Your task to perform on an android device: search for starred emails in the gmail app Image 0: 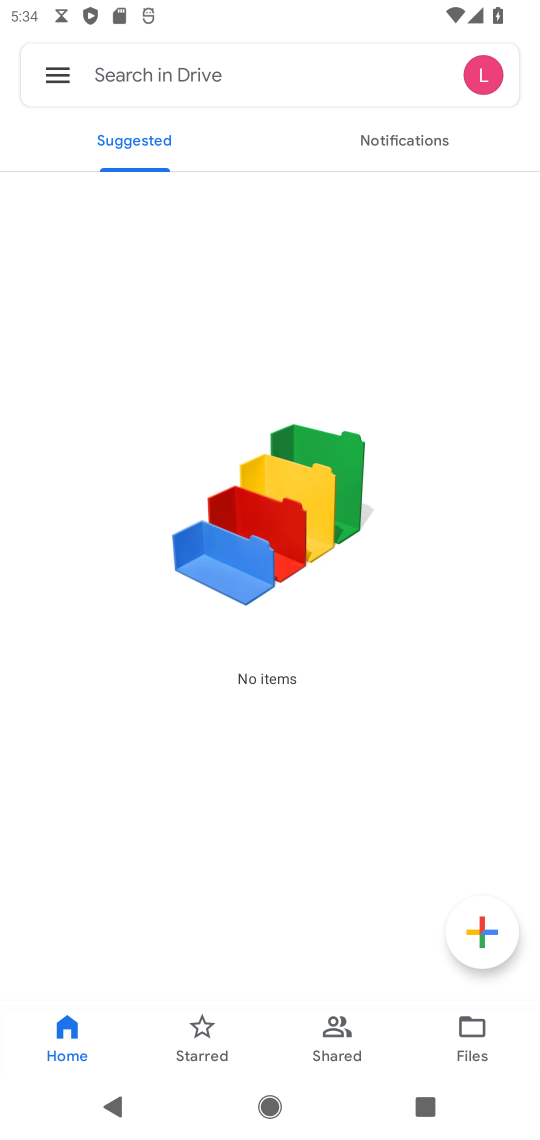
Step 0: press home button
Your task to perform on an android device: search for starred emails in the gmail app Image 1: 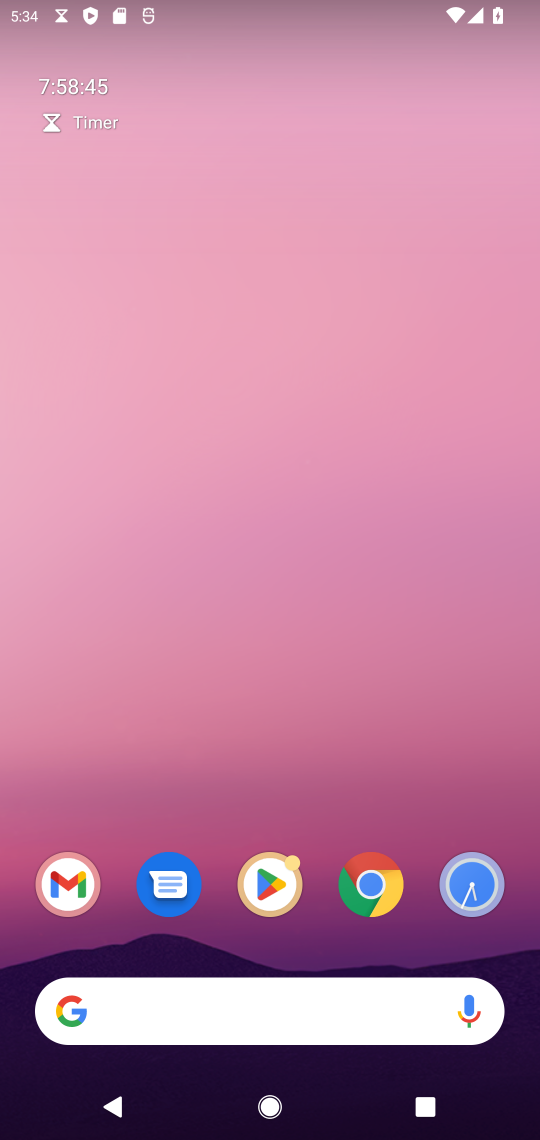
Step 1: drag from (343, 829) to (255, 149)
Your task to perform on an android device: search for starred emails in the gmail app Image 2: 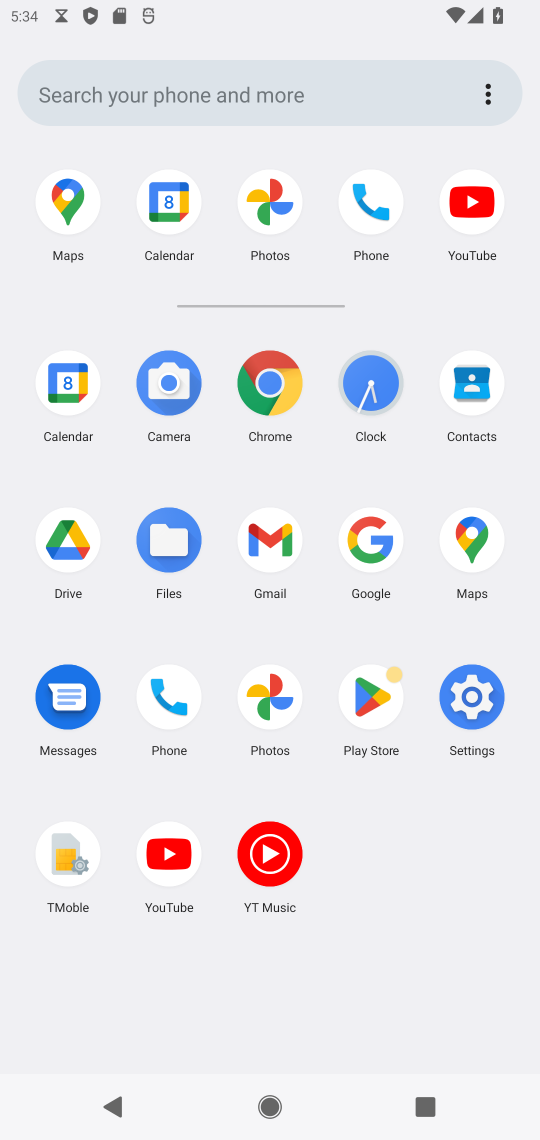
Step 2: click (275, 535)
Your task to perform on an android device: search for starred emails in the gmail app Image 3: 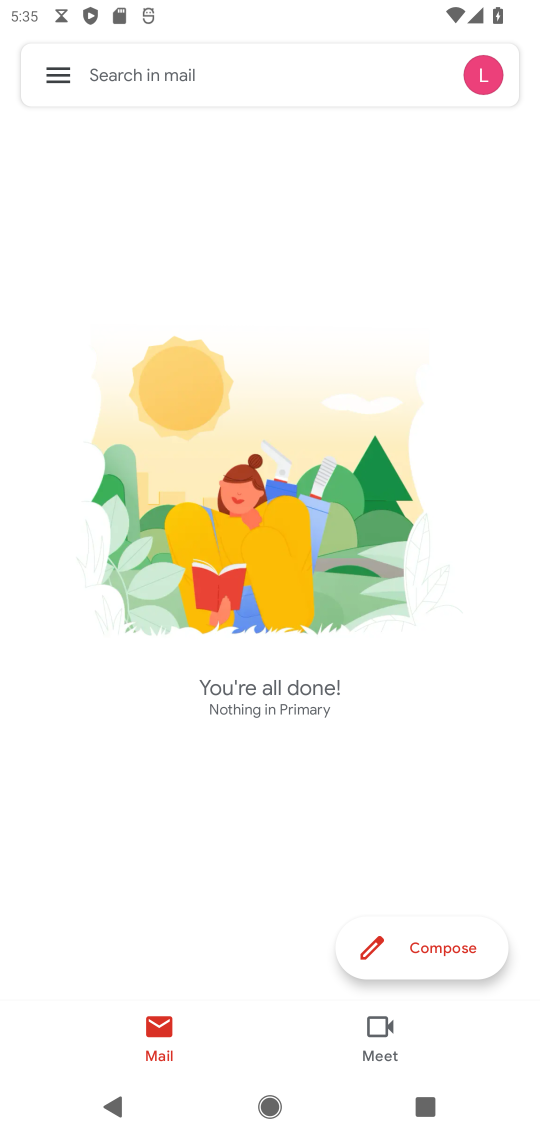
Step 3: click (53, 79)
Your task to perform on an android device: search for starred emails in the gmail app Image 4: 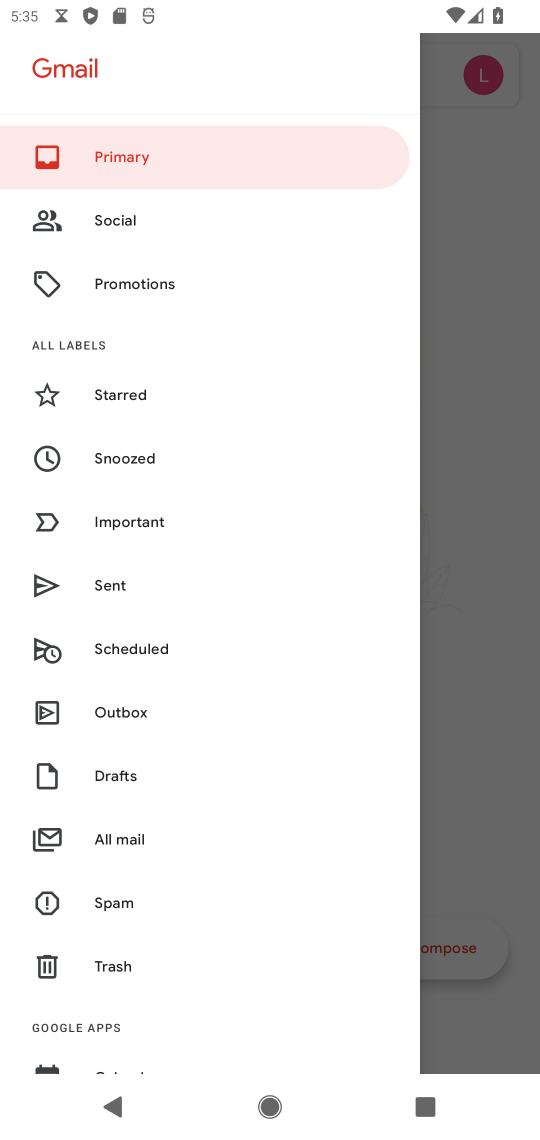
Step 4: drag from (184, 1031) to (175, 816)
Your task to perform on an android device: search for starred emails in the gmail app Image 5: 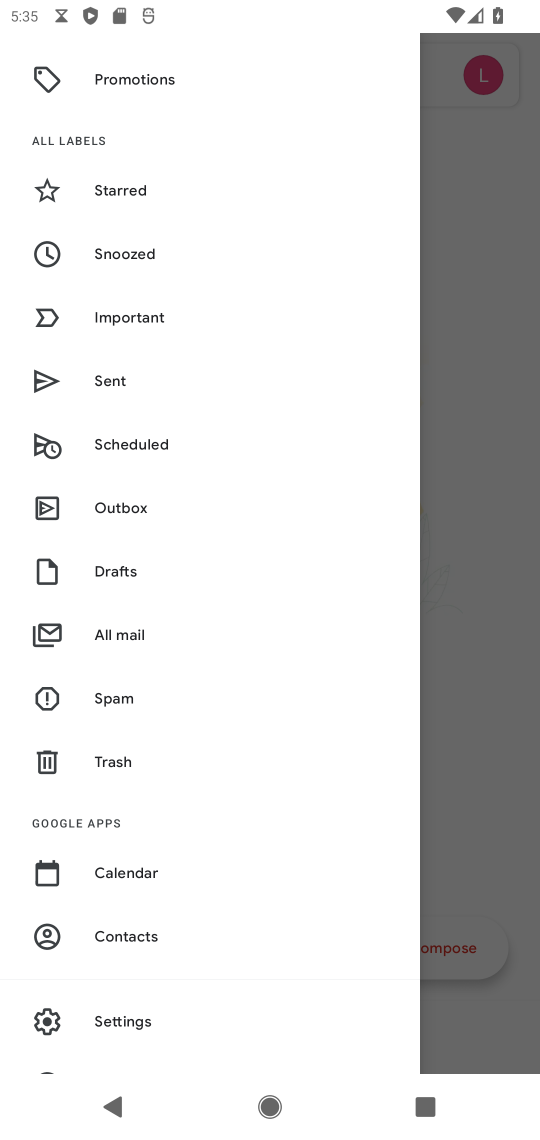
Step 5: click (157, 189)
Your task to perform on an android device: search for starred emails in the gmail app Image 6: 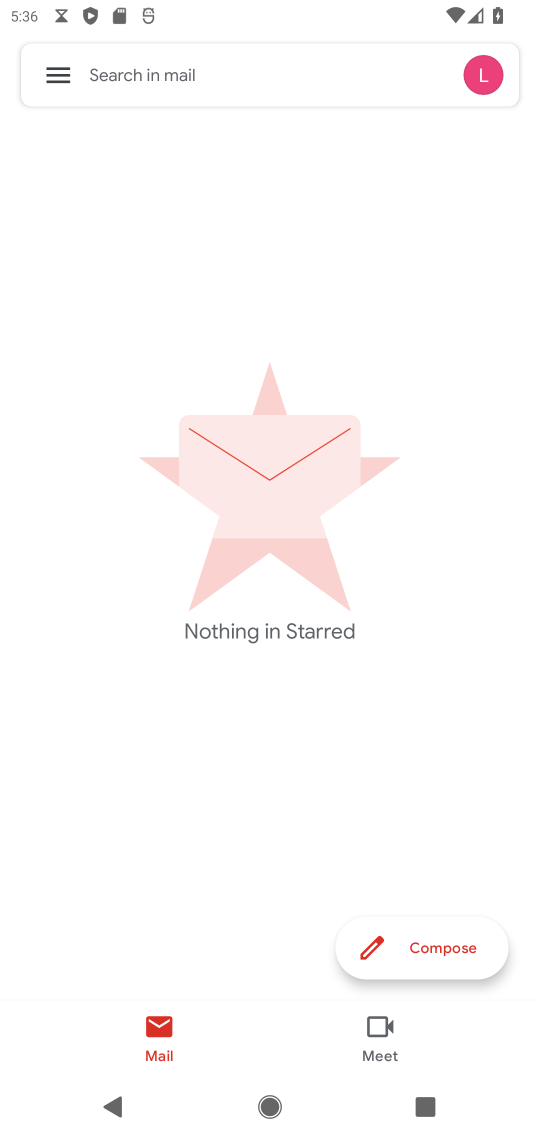
Step 6: task complete